Your task to perform on an android device: Open privacy settings Image 0: 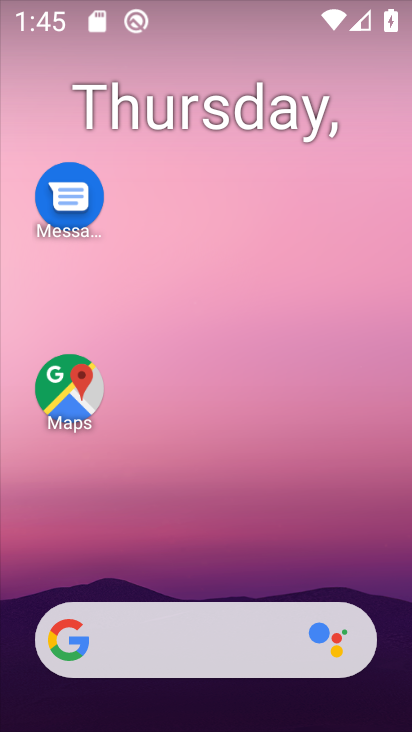
Step 0: drag from (157, 600) to (164, 174)
Your task to perform on an android device: Open privacy settings Image 1: 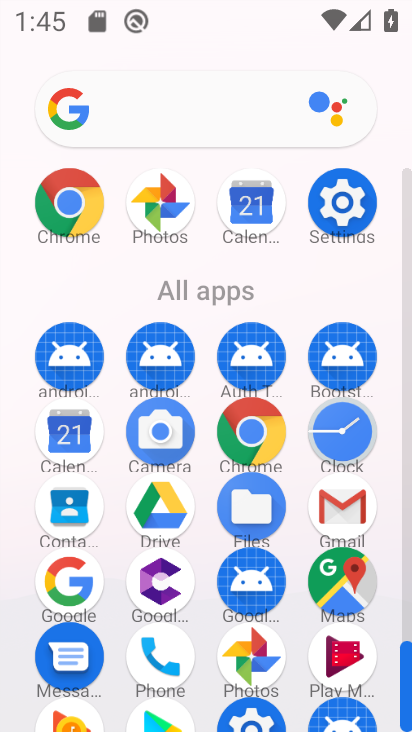
Step 1: click (342, 195)
Your task to perform on an android device: Open privacy settings Image 2: 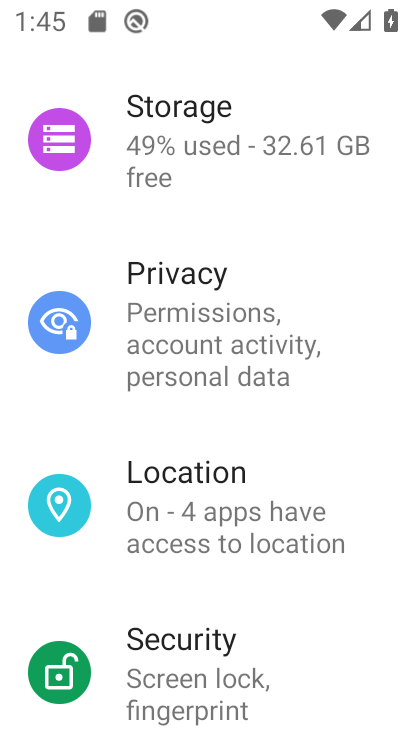
Step 2: drag from (187, 616) to (200, 525)
Your task to perform on an android device: Open privacy settings Image 3: 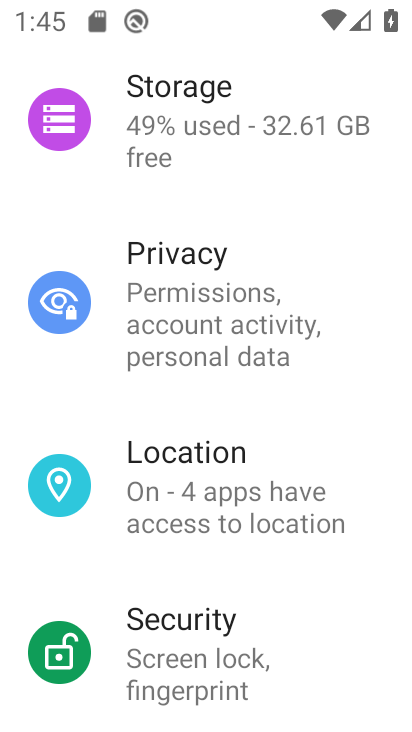
Step 3: click (164, 328)
Your task to perform on an android device: Open privacy settings Image 4: 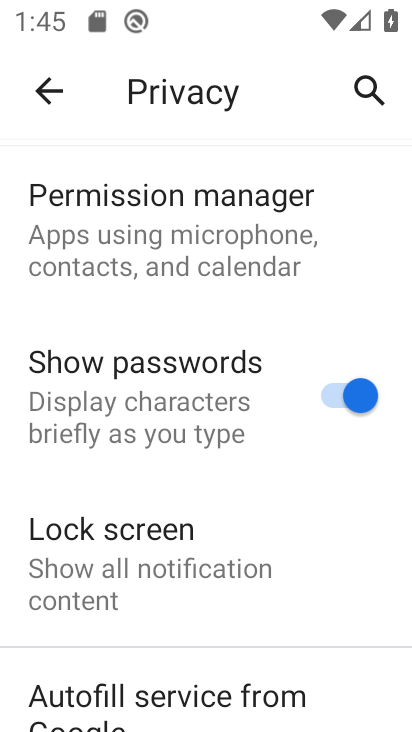
Step 4: task complete